Your task to perform on an android device: toggle show notifications on the lock screen Image 0: 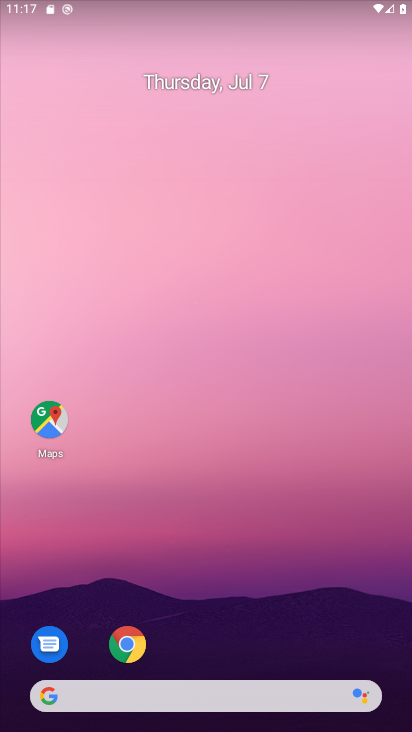
Step 0: press home button
Your task to perform on an android device: toggle show notifications on the lock screen Image 1: 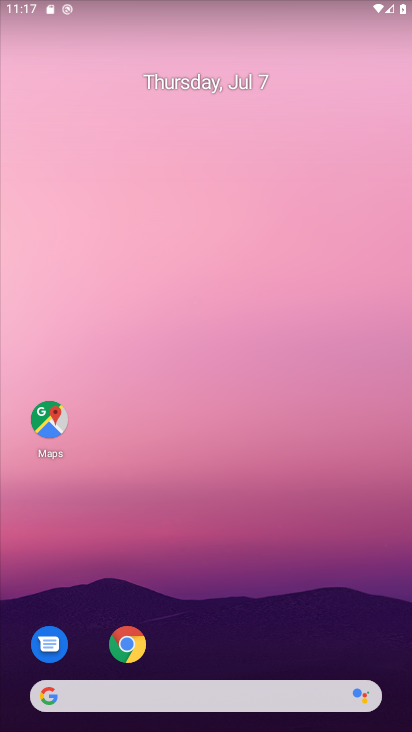
Step 1: drag from (294, 586) to (296, 61)
Your task to perform on an android device: toggle show notifications on the lock screen Image 2: 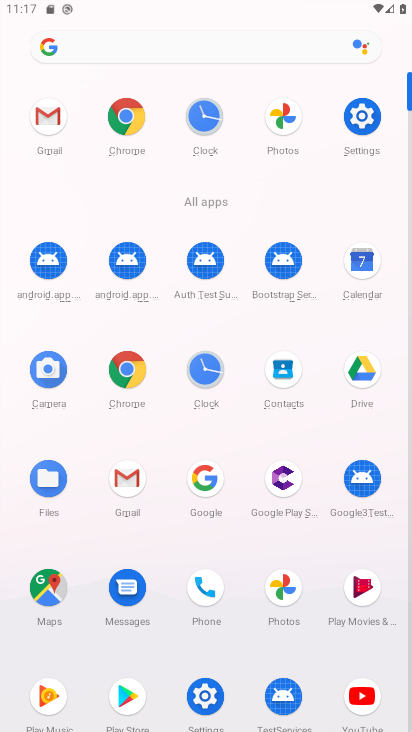
Step 2: click (358, 112)
Your task to perform on an android device: toggle show notifications on the lock screen Image 3: 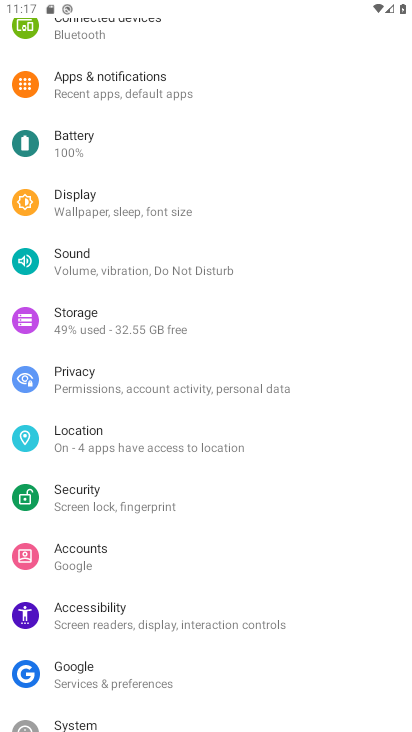
Step 3: click (105, 94)
Your task to perform on an android device: toggle show notifications on the lock screen Image 4: 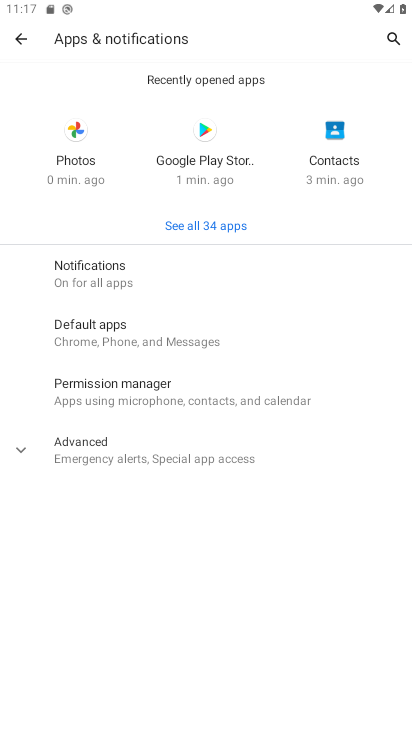
Step 4: click (111, 272)
Your task to perform on an android device: toggle show notifications on the lock screen Image 5: 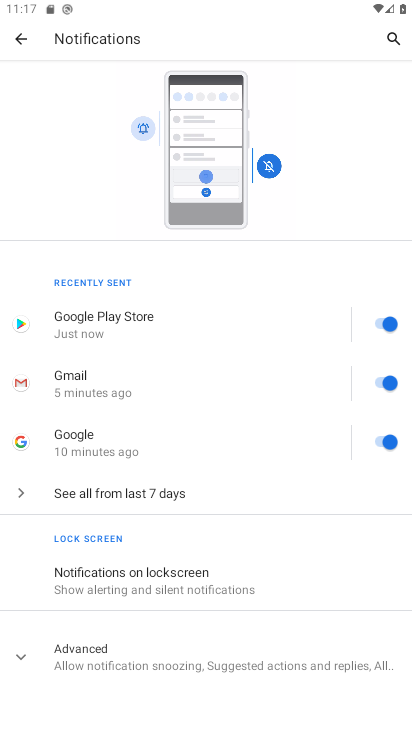
Step 5: click (174, 583)
Your task to perform on an android device: toggle show notifications on the lock screen Image 6: 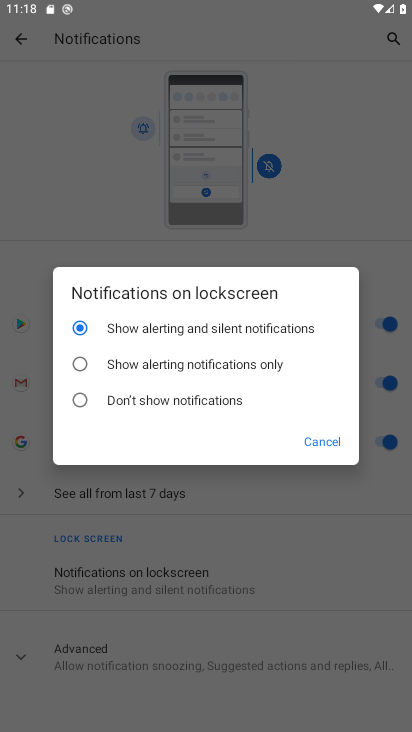
Step 6: click (106, 399)
Your task to perform on an android device: toggle show notifications on the lock screen Image 7: 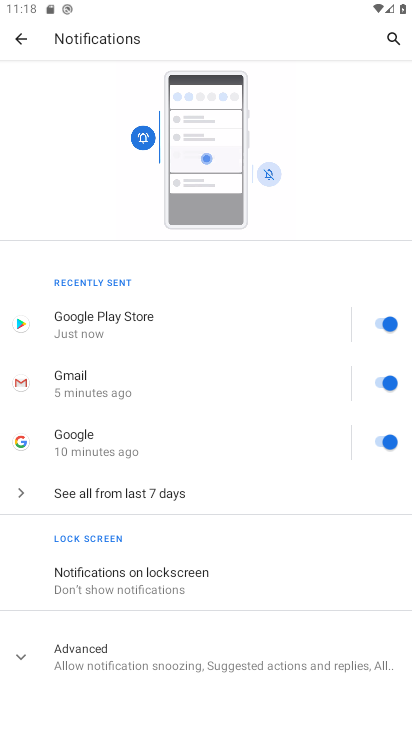
Step 7: task complete